Your task to perform on an android device: Open the stopwatch Image 0: 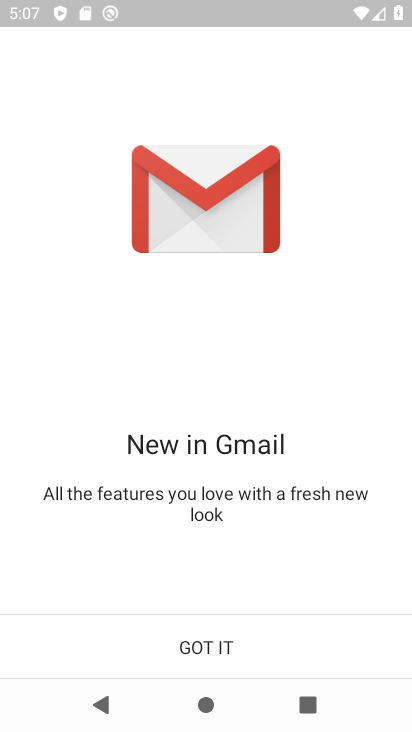
Step 0: click (202, 647)
Your task to perform on an android device: Open the stopwatch Image 1: 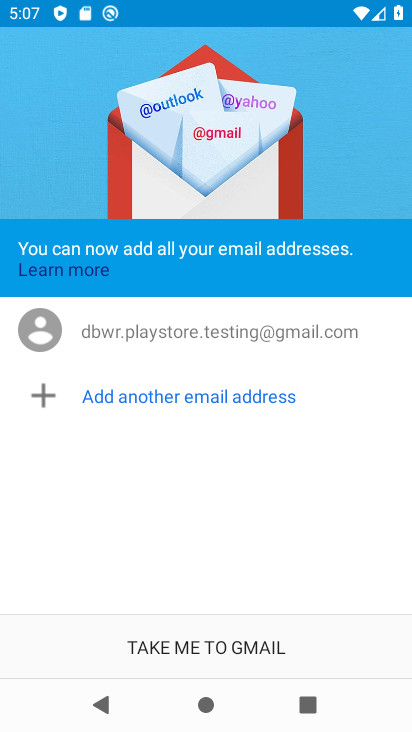
Step 1: click (202, 647)
Your task to perform on an android device: Open the stopwatch Image 2: 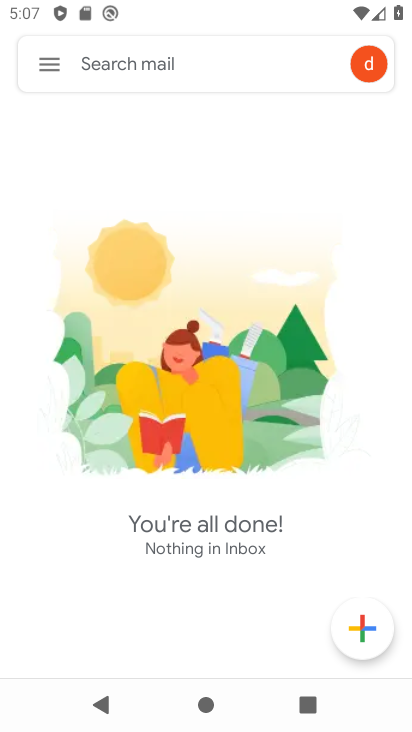
Step 2: press home button
Your task to perform on an android device: Open the stopwatch Image 3: 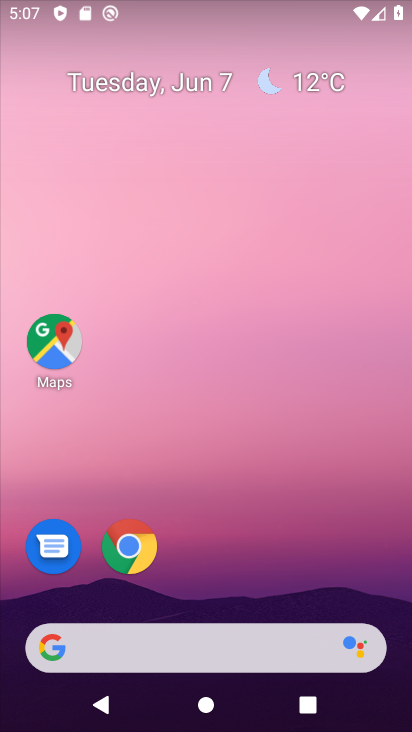
Step 3: drag from (280, 558) to (406, 423)
Your task to perform on an android device: Open the stopwatch Image 4: 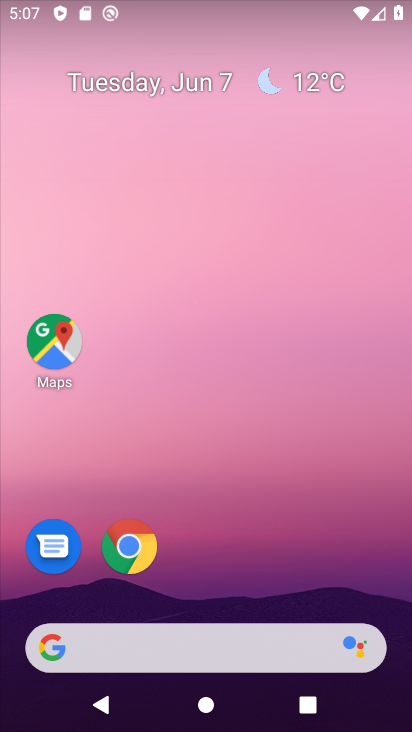
Step 4: drag from (229, 578) to (317, 32)
Your task to perform on an android device: Open the stopwatch Image 5: 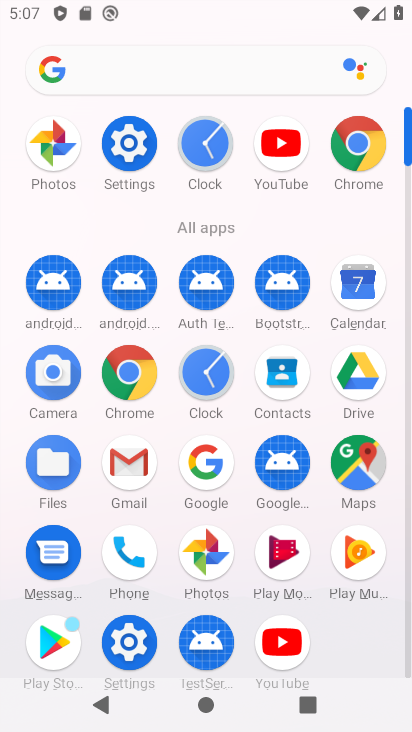
Step 5: click (205, 369)
Your task to perform on an android device: Open the stopwatch Image 6: 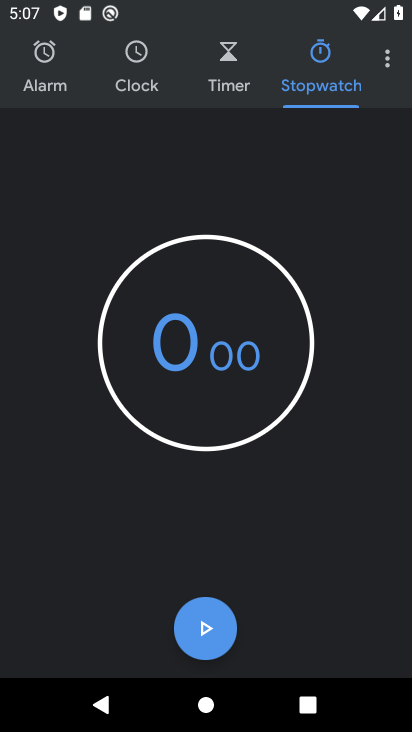
Step 6: task complete